Your task to perform on an android device: Show me recent news Image 0: 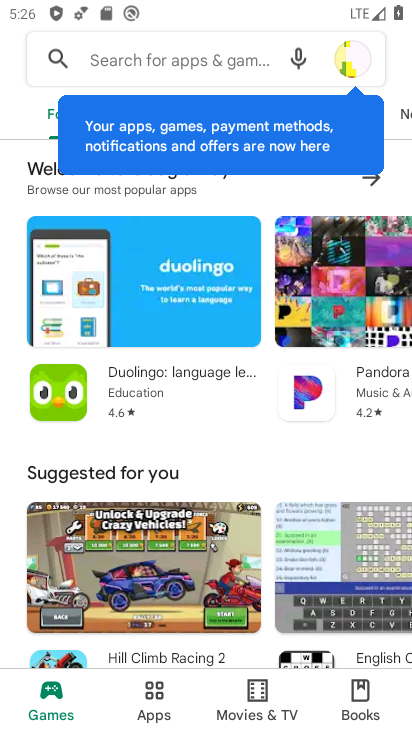
Step 0: press home button
Your task to perform on an android device: Show me recent news Image 1: 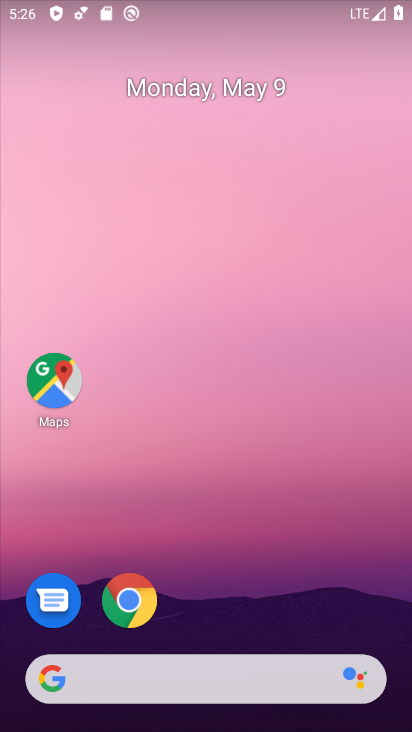
Step 1: click (160, 674)
Your task to perform on an android device: Show me recent news Image 2: 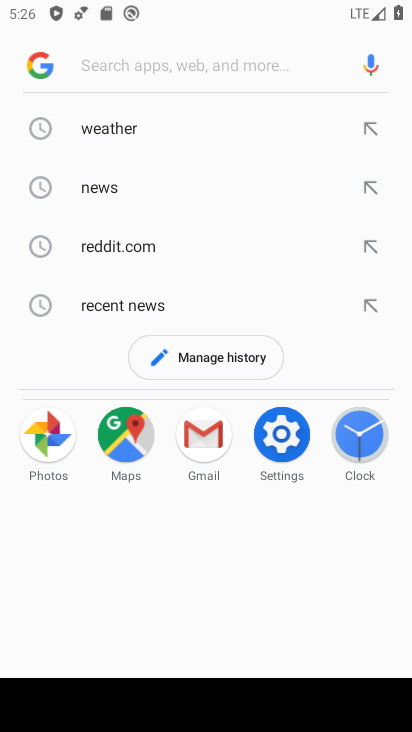
Step 2: click (129, 305)
Your task to perform on an android device: Show me recent news Image 3: 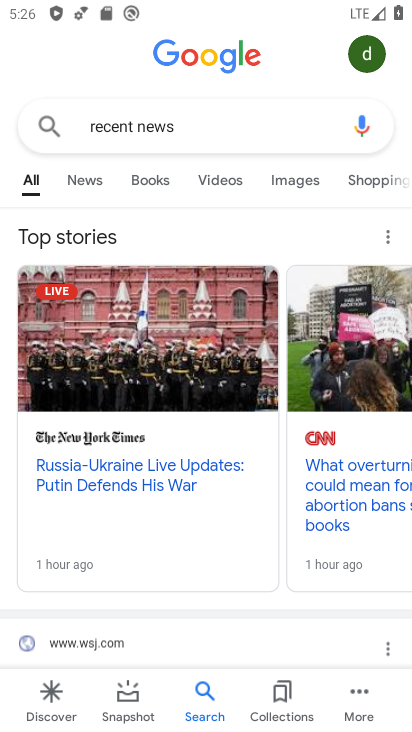
Step 3: task complete